Your task to perform on an android device: turn off notifications settings in the gmail app Image 0: 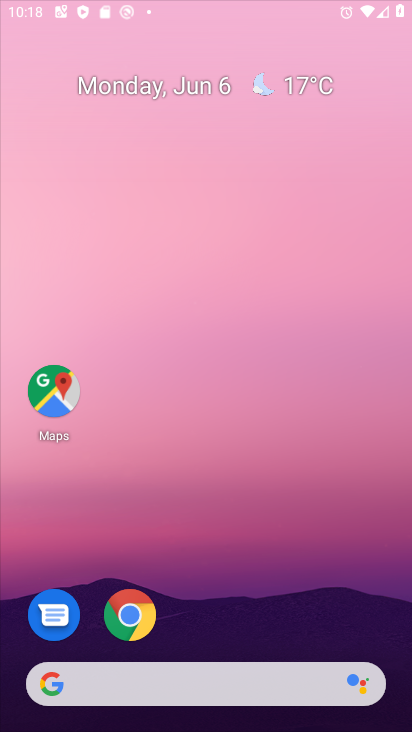
Step 0: press home button
Your task to perform on an android device: turn off notifications settings in the gmail app Image 1: 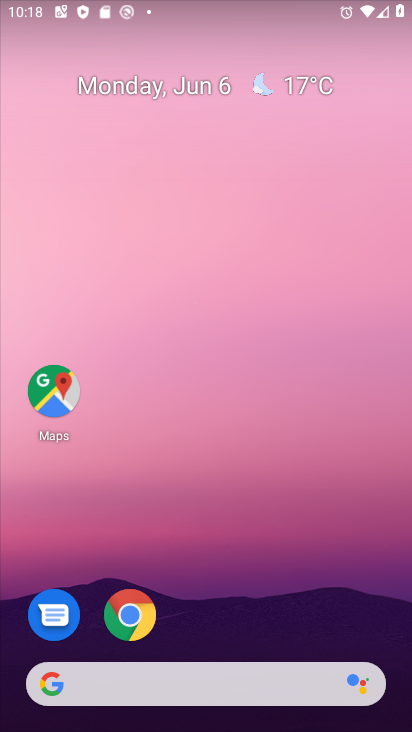
Step 1: drag from (228, 644) to (241, 104)
Your task to perform on an android device: turn off notifications settings in the gmail app Image 2: 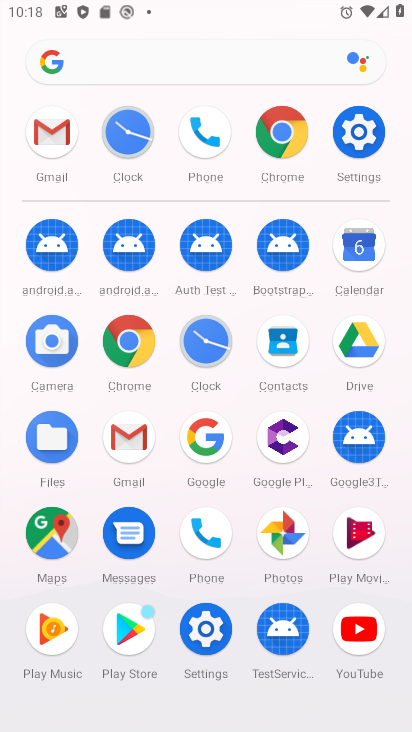
Step 2: click (121, 427)
Your task to perform on an android device: turn off notifications settings in the gmail app Image 3: 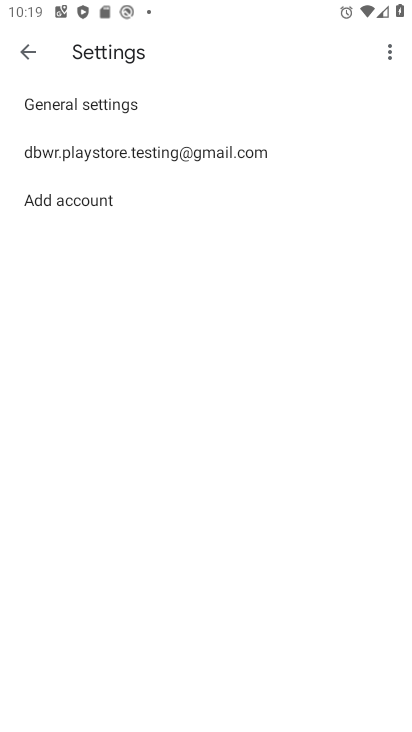
Step 3: click (144, 103)
Your task to perform on an android device: turn off notifications settings in the gmail app Image 4: 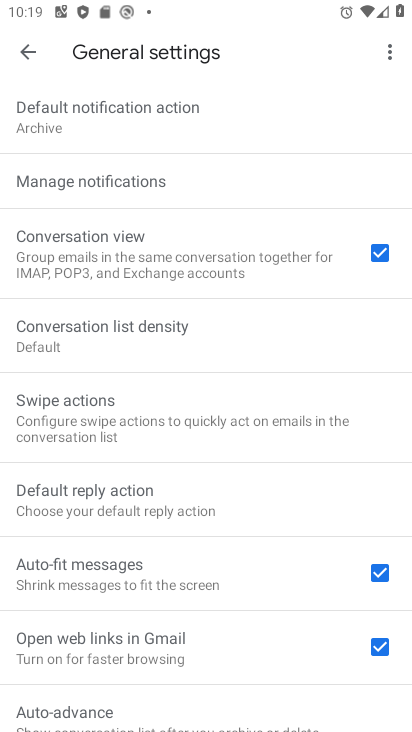
Step 4: click (170, 177)
Your task to perform on an android device: turn off notifications settings in the gmail app Image 5: 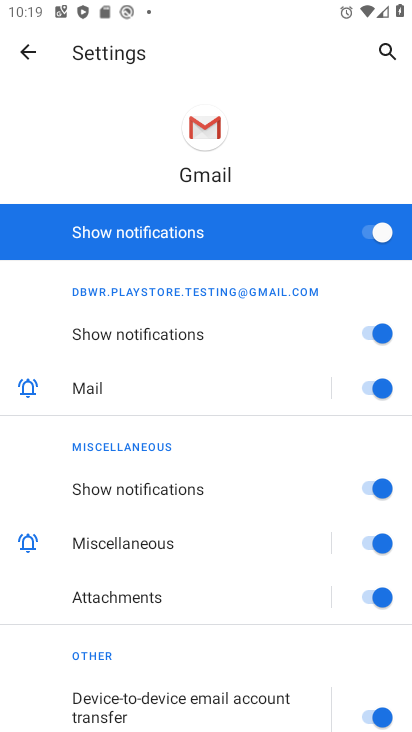
Step 5: click (360, 231)
Your task to perform on an android device: turn off notifications settings in the gmail app Image 6: 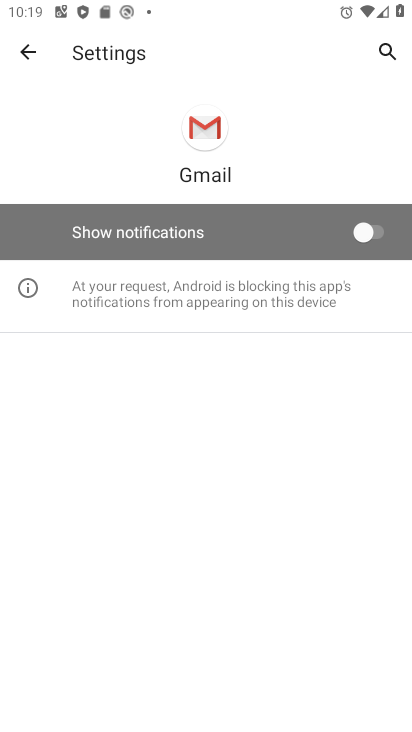
Step 6: task complete